Your task to perform on an android device: Open Google Maps Image 0: 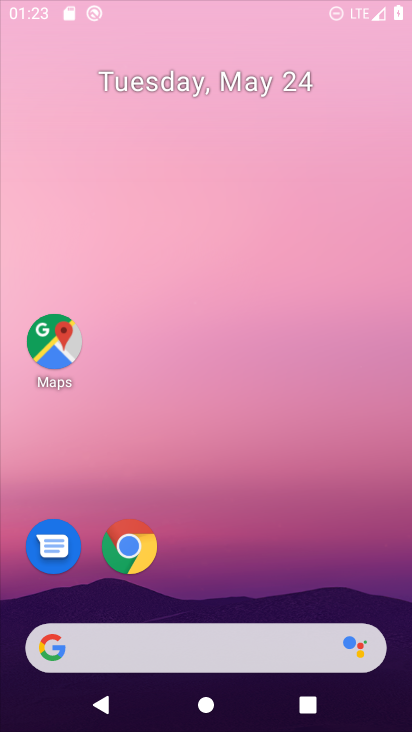
Step 0: drag from (227, 280) to (352, 10)
Your task to perform on an android device: Open Google Maps Image 1: 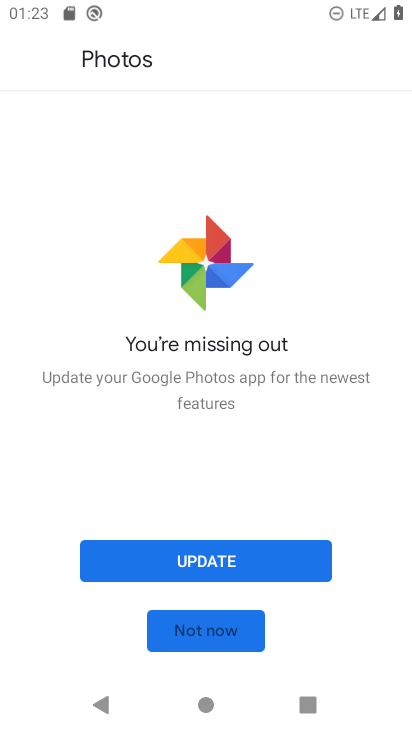
Step 1: press home button
Your task to perform on an android device: Open Google Maps Image 2: 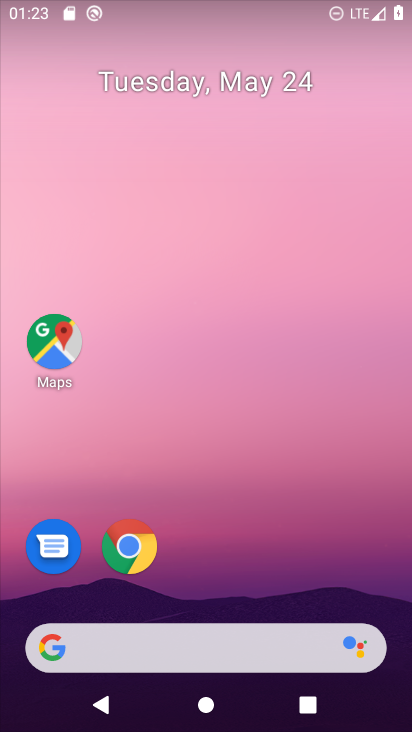
Step 2: drag from (289, 637) to (222, 0)
Your task to perform on an android device: Open Google Maps Image 3: 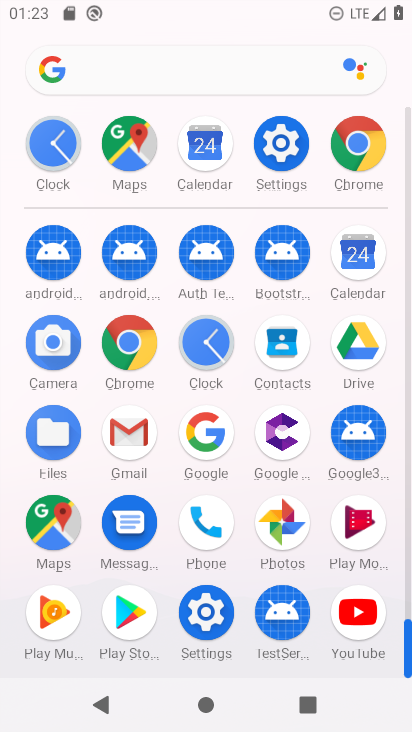
Step 3: click (67, 529)
Your task to perform on an android device: Open Google Maps Image 4: 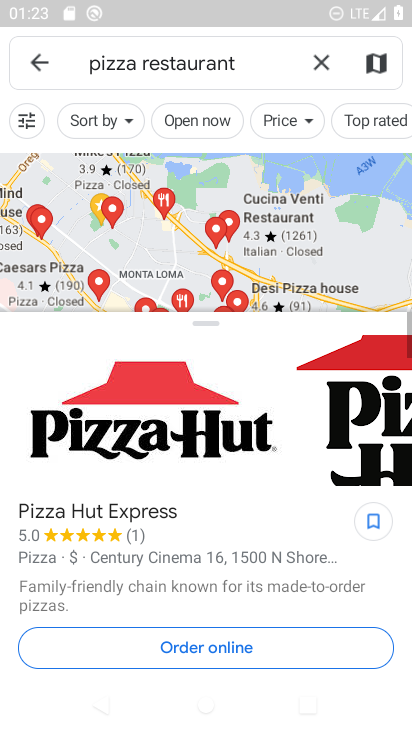
Step 4: task complete